Your task to perform on an android device: Open Chrome and go to settings Image 0: 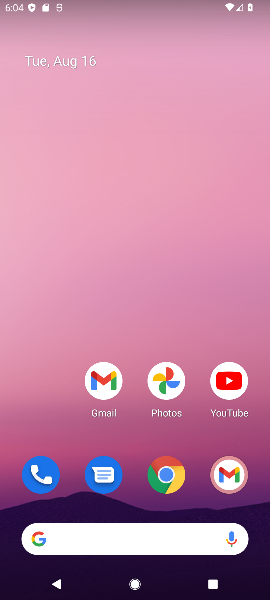
Step 0: drag from (254, 501) to (144, 64)
Your task to perform on an android device: Open Chrome and go to settings Image 1: 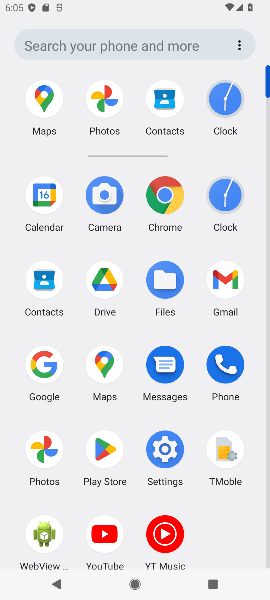
Step 1: click (177, 196)
Your task to perform on an android device: Open Chrome and go to settings Image 2: 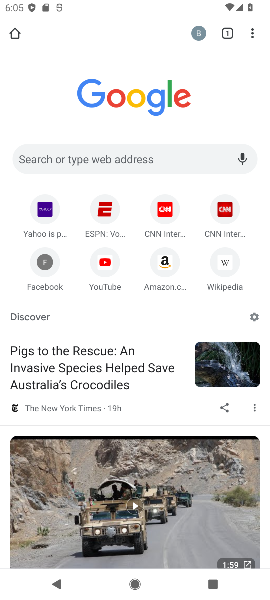
Step 2: click (256, 35)
Your task to perform on an android device: Open Chrome and go to settings Image 3: 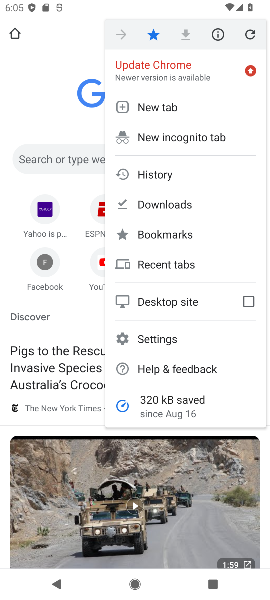
Step 3: click (166, 343)
Your task to perform on an android device: Open Chrome and go to settings Image 4: 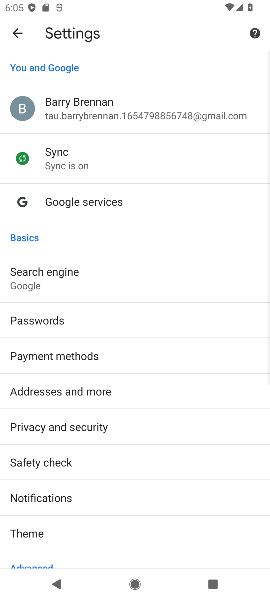
Step 4: task complete